Your task to perform on an android device: What's on my calendar today? Image 0: 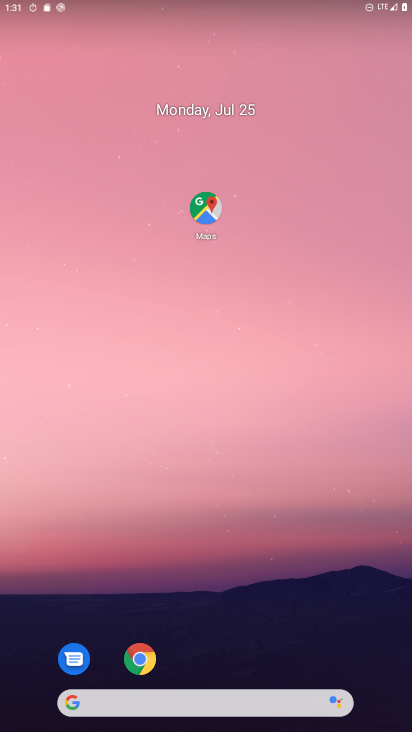
Step 0: drag from (36, 692) to (136, 261)
Your task to perform on an android device: What's on my calendar today? Image 1: 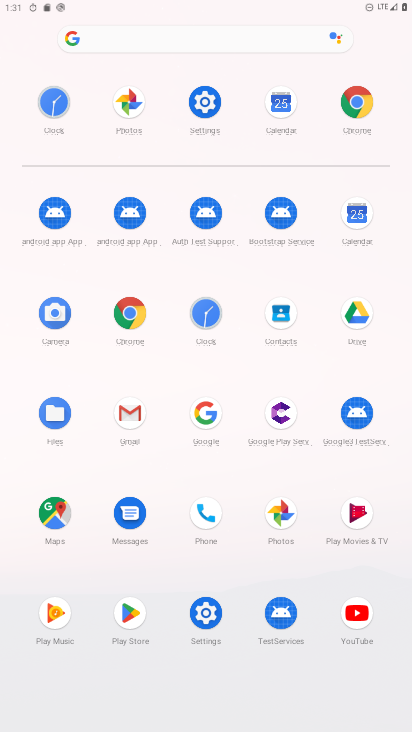
Step 1: click (361, 223)
Your task to perform on an android device: What's on my calendar today? Image 2: 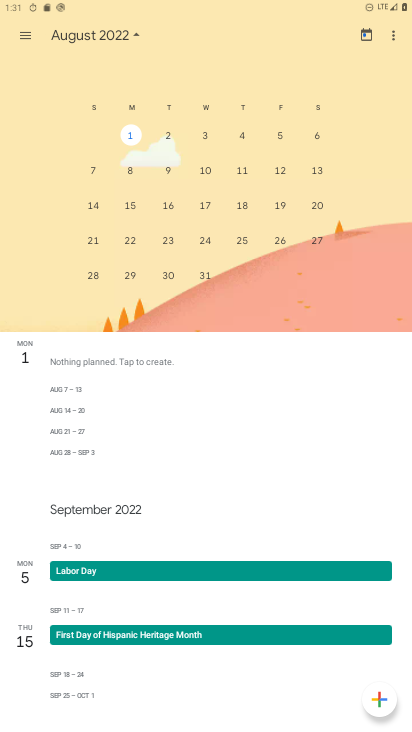
Step 2: task complete